Your task to perform on an android device: turn vacation reply on in the gmail app Image 0: 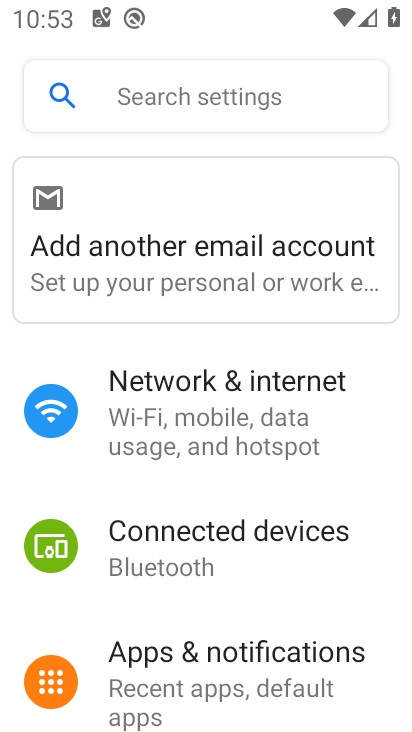
Step 0: drag from (254, 692) to (152, 105)
Your task to perform on an android device: turn vacation reply on in the gmail app Image 1: 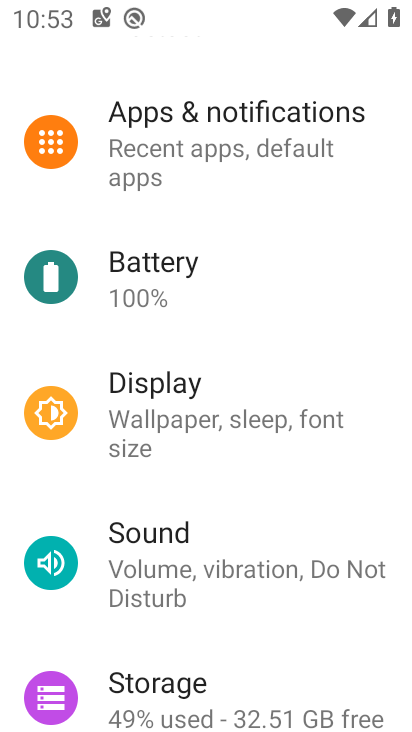
Step 1: drag from (259, 541) to (224, 117)
Your task to perform on an android device: turn vacation reply on in the gmail app Image 2: 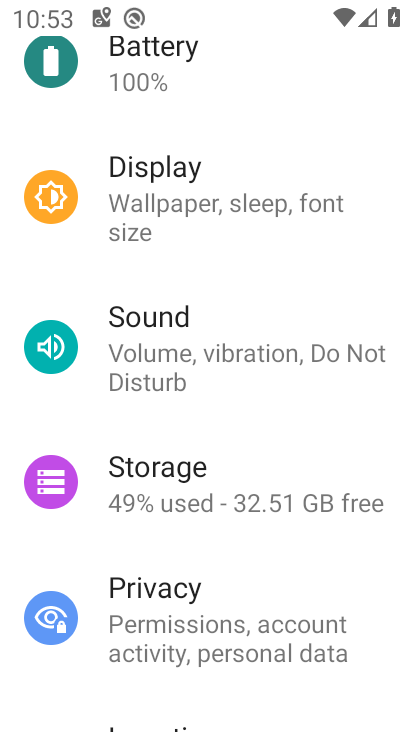
Step 2: press home button
Your task to perform on an android device: turn vacation reply on in the gmail app Image 3: 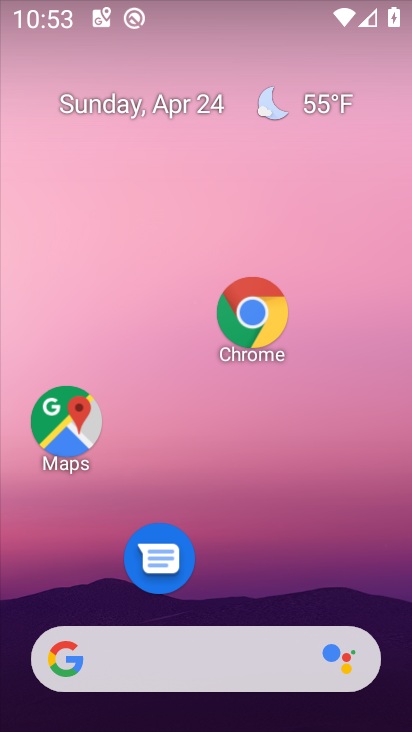
Step 3: drag from (256, 669) to (160, 1)
Your task to perform on an android device: turn vacation reply on in the gmail app Image 4: 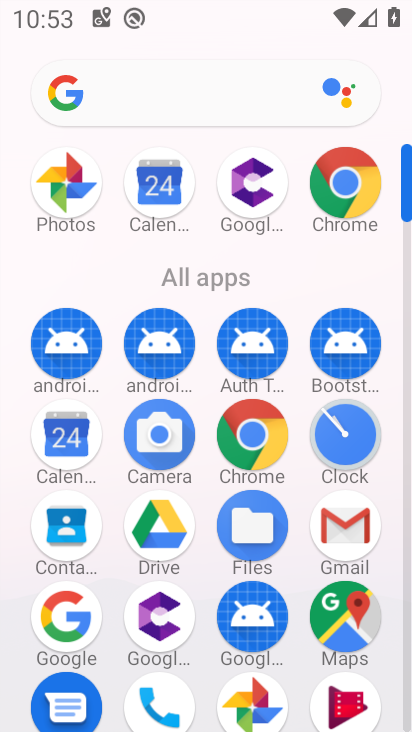
Step 4: click (341, 526)
Your task to perform on an android device: turn vacation reply on in the gmail app Image 5: 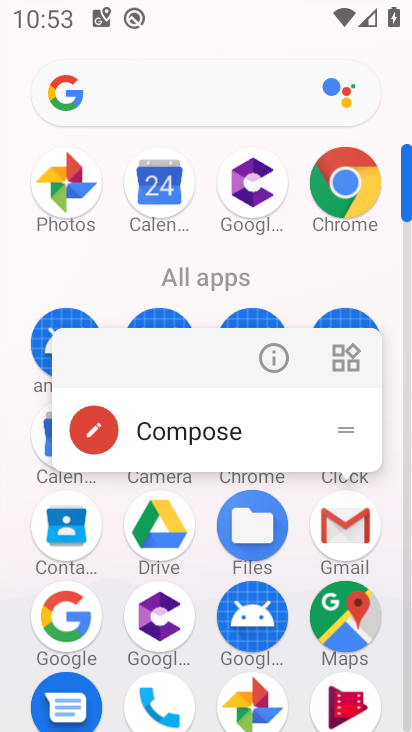
Step 5: click (333, 527)
Your task to perform on an android device: turn vacation reply on in the gmail app Image 6: 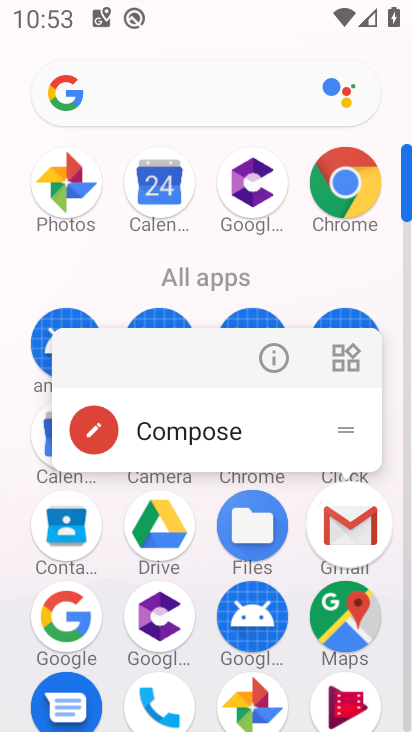
Step 6: click (338, 526)
Your task to perform on an android device: turn vacation reply on in the gmail app Image 7: 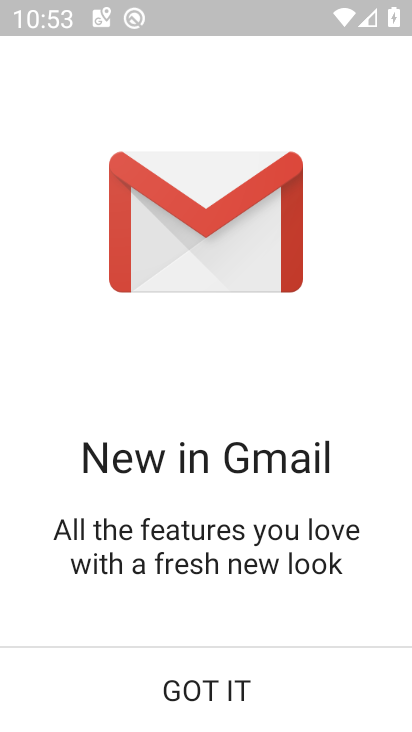
Step 7: click (212, 681)
Your task to perform on an android device: turn vacation reply on in the gmail app Image 8: 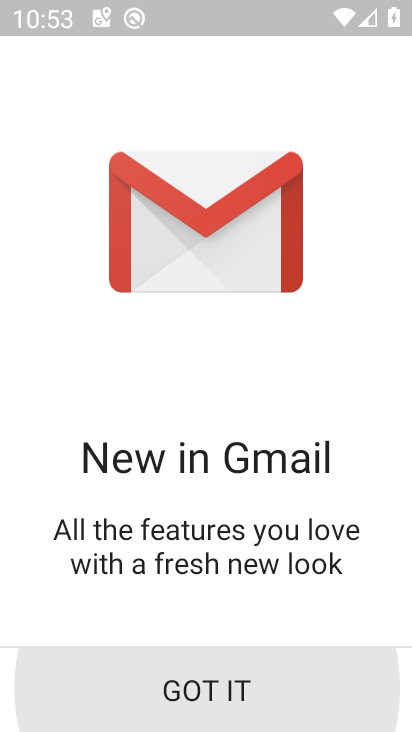
Step 8: click (212, 681)
Your task to perform on an android device: turn vacation reply on in the gmail app Image 9: 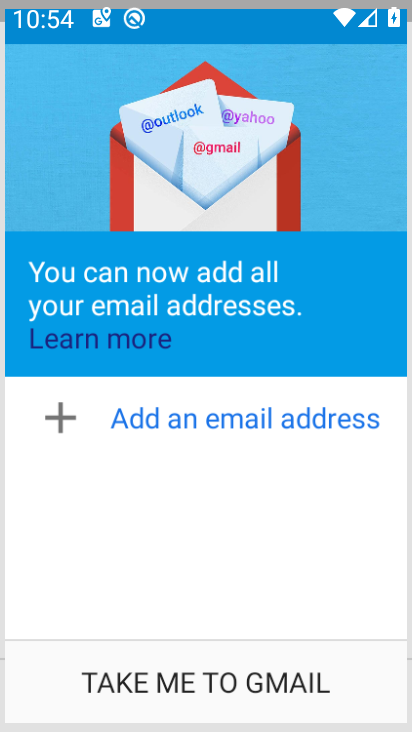
Step 9: click (221, 670)
Your task to perform on an android device: turn vacation reply on in the gmail app Image 10: 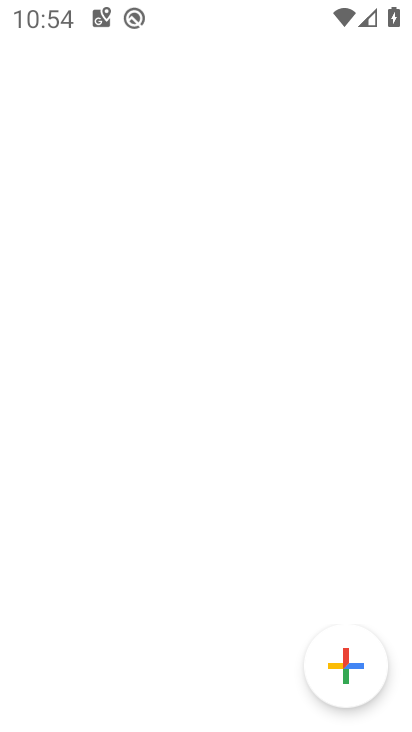
Step 10: click (214, 686)
Your task to perform on an android device: turn vacation reply on in the gmail app Image 11: 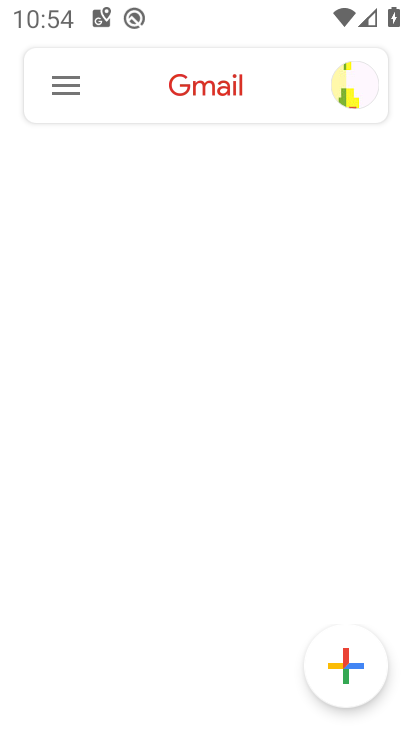
Step 11: click (214, 687)
Your task to perform on an android device: turn vacation reply on in the gmail app Image 12: 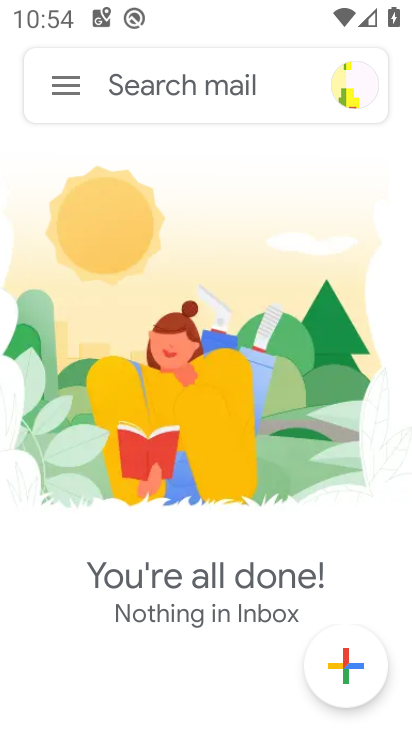
Step 12: click (63, 84)
Your task to perform on an android device: turn vacation reply on in the gmail app Image 13: 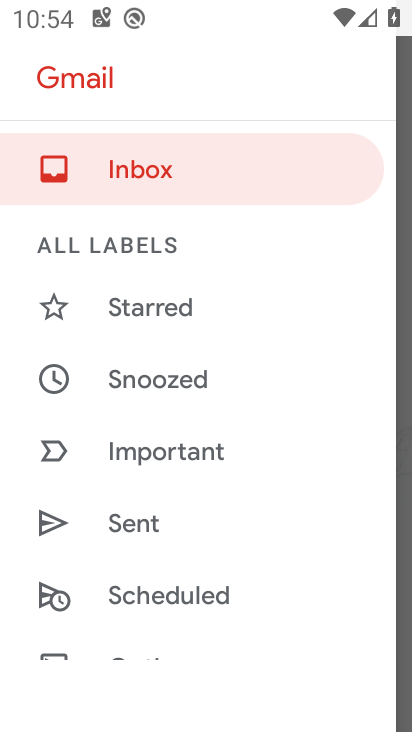
Step 13: drag from (200, 592) to (148, 159)
Your task to perform on an android device: turn vacation reply on in the gmail app Image 14: 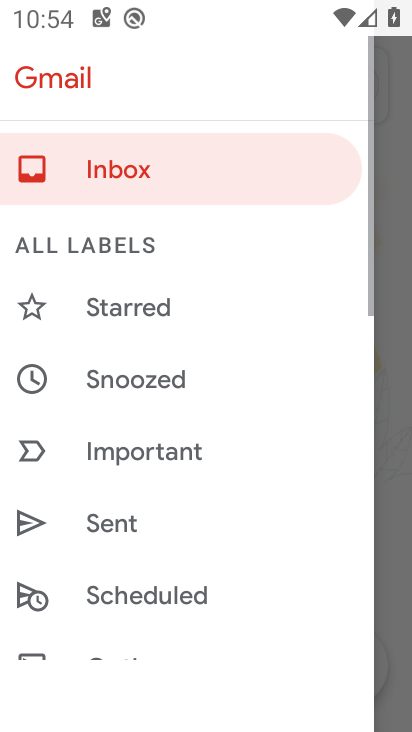
Step 14: drag from (243, 557) to (211, 78)
Your task to perform on an android device: turn vacation reply on in the gmail app Image 15: 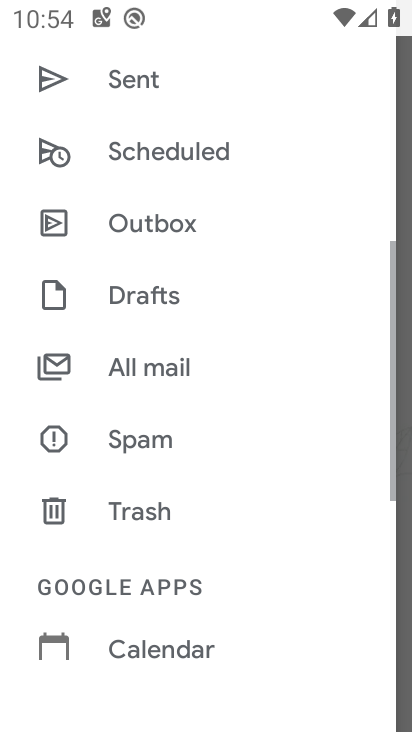
Step 15: drag from (205, 519) to (195, 69)
Your task to perform on an android device: turn vacation reply on in the gmail app Image 16: 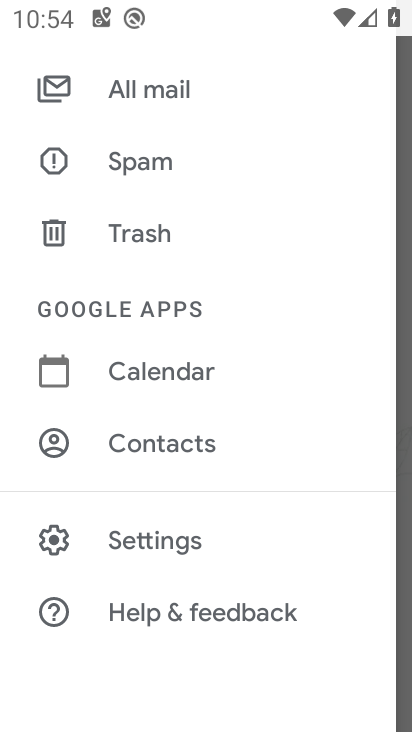
Step 16: click (146, 539)
Your task to perform on an android device: turn vacation reply on in the gmail app Image 17: 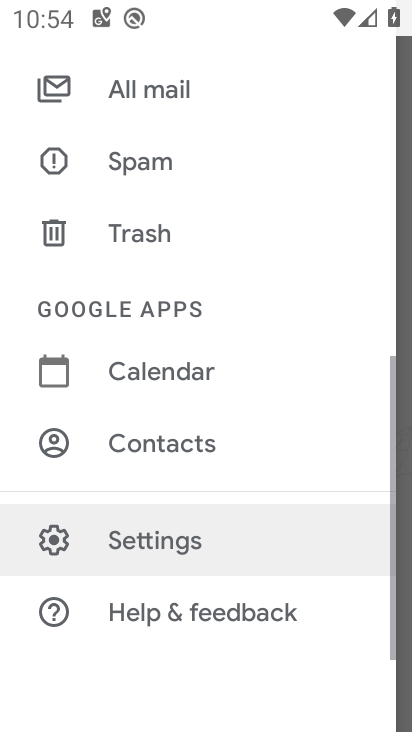
Step 17: click (151, 539)
Your task to perform on an android device: turn vacation reply on in the gmail app Image 18: 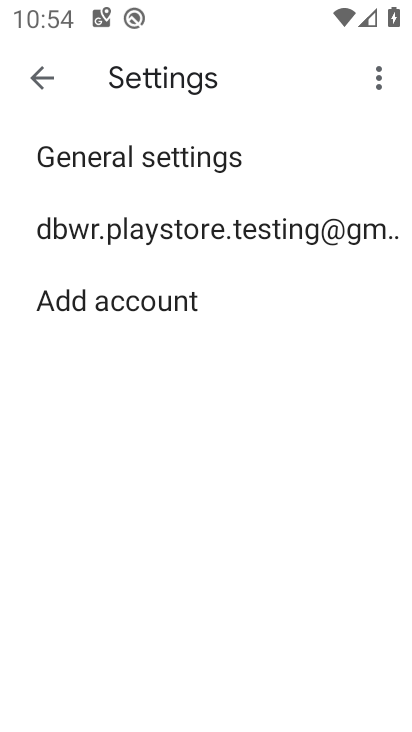
Step 18: click (159, 224)
Your task to perform on an android device: turn vacation reply on in the gmail app Image 19: 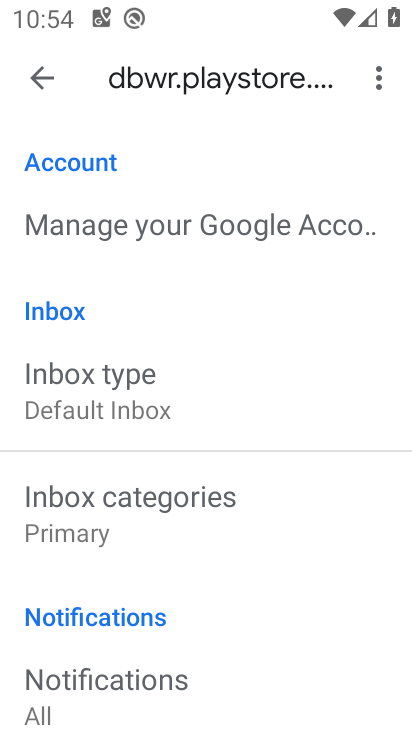
Step 19: drag from (216, 690) to (80, 178)
Your task to perform on an android device: turn vacation reply on in the gmail app Image 20: 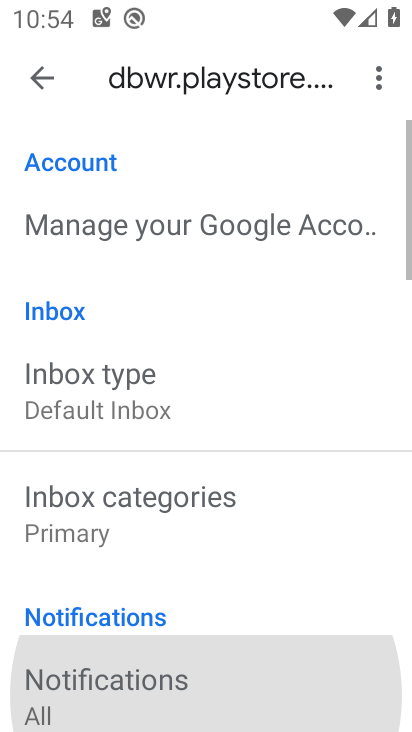
Step 20: drag from (159, 599) to (128, 143)
Your task to perform on an android device: turn vacation reply on in the gmail app Image 21: 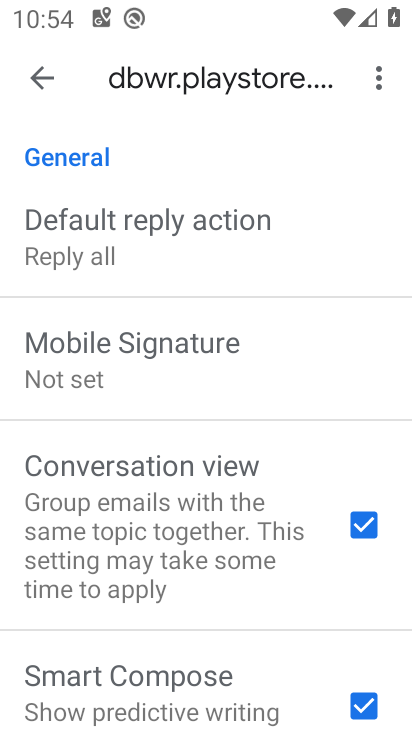
Step 21: drag from (186, 568) to (176, 232)
Your task to perform on an android device: turn vacation reply on in the gmail app Image 22: 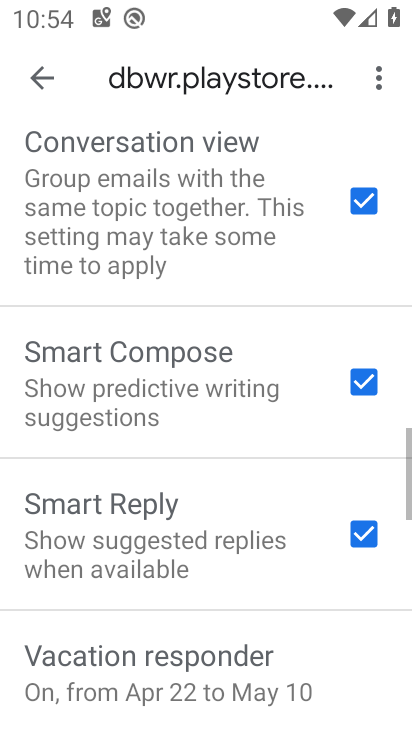
Step 22: drag from (194, 593) to (158, 147)
Your task to perform on an android device: turn vacation reply on in the gmail app Image 23: 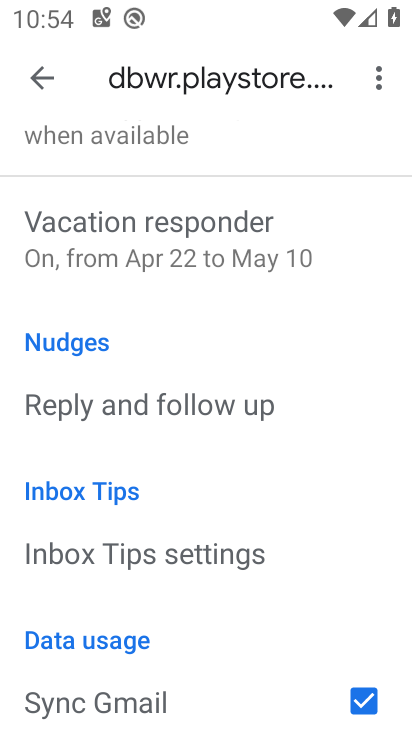
Step 23: click (164, 227)
Your task to perform on an android device: turn vacation reply on in the gmail app Image 24: 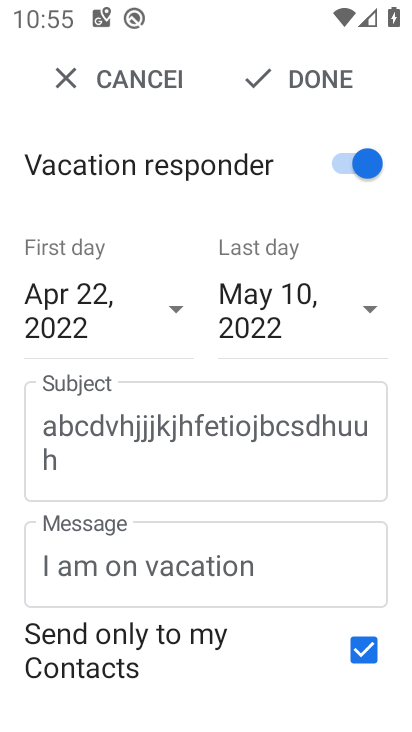
Step 24: task complete